Your task to perform on an android device: turn on notifications settings in the gmail app Image 0: 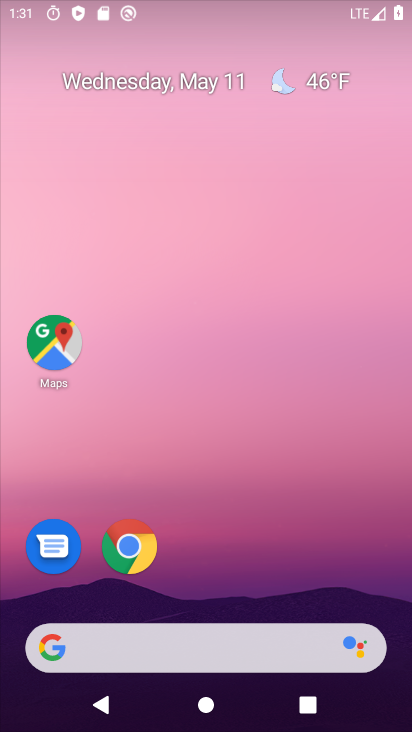
Step 0: press home button
Your task to perform on an android device: turn on notifications settings in the gmail app Image 1: 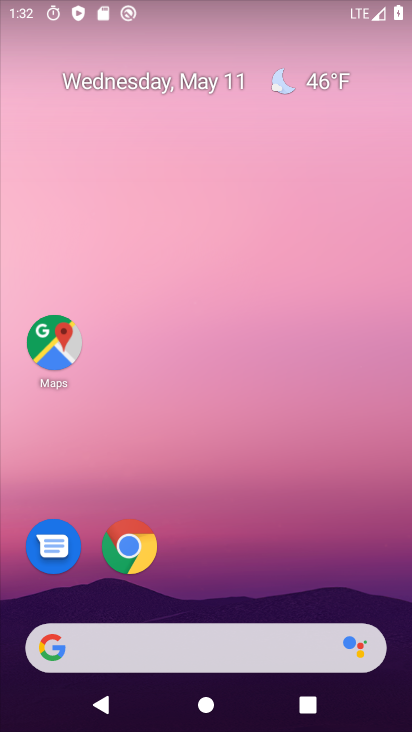
Step 1: drag from (255, 677) to (228, 270)
Your task to perform on an android device: turn on notifications settings in the gmail app Image 2: 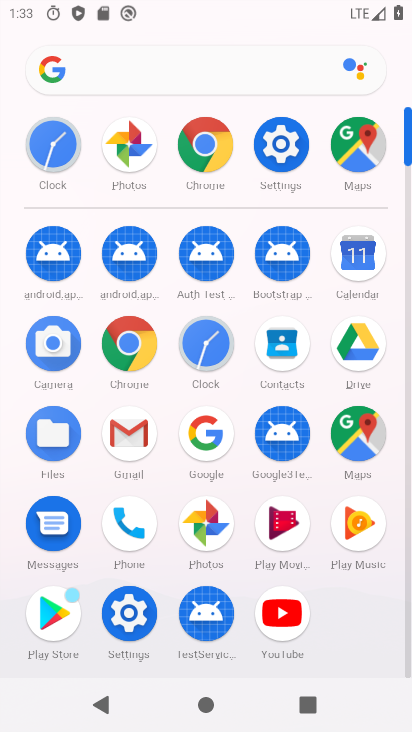
Step 2: click (129, 426)
Your task to perform on an android device: turn on notifications settings in the gmail app Image 3: 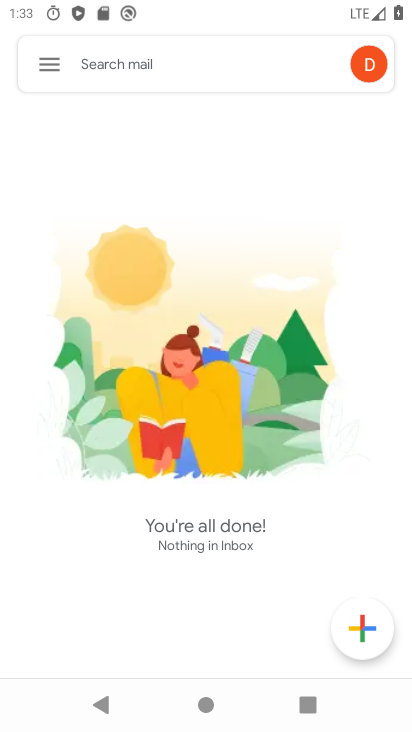
Step 3: click (44, 77)
Your task to perform on an android device: turn on notifications settings in the gmail app Image 4: 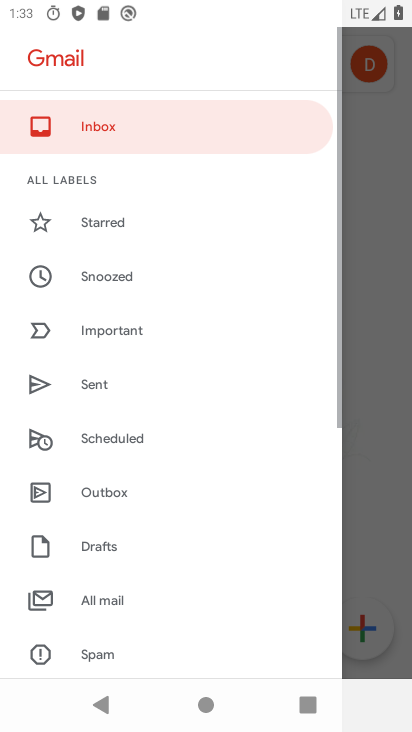
Step 4: drag from (105, 603) to (178, 327)
Your task to perform on an android device: turn on notifications settings in the gmail app Image 5: 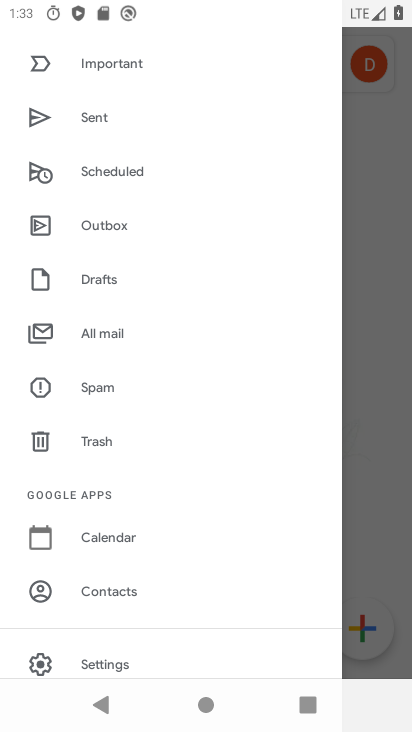
Step 5: click (108, 663)
Your task to perform on an android device: turn on notifications settings in the gmail app Image 6: 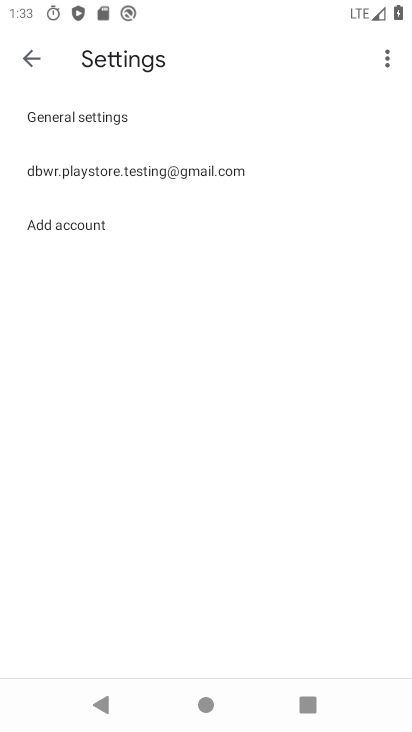
Step 6: click (111, 173)
Your task to perform on an android device: turn on notifications settings in the gmail app Image 7: 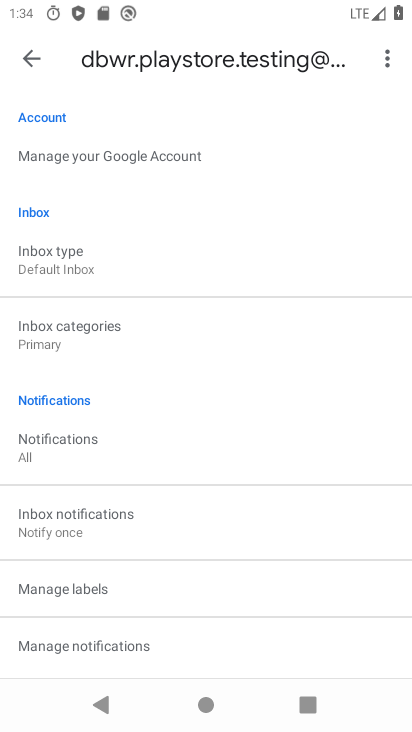
Step 7: click (83, 438)
Your task to perform on an android device: turn on notifications settings in the gmail app Image 8: 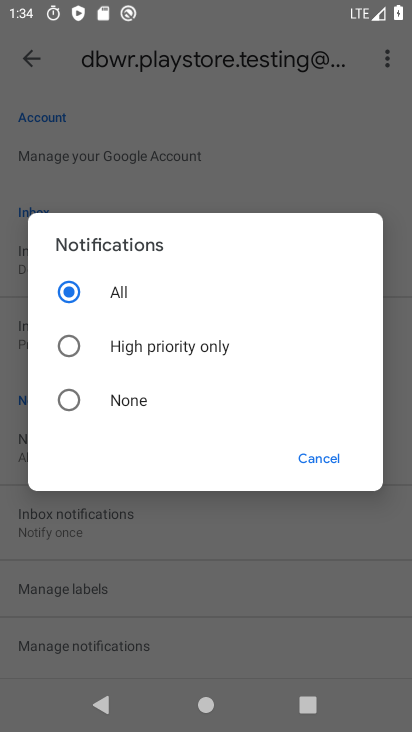
Step 8: task complete